Your task to perform on an android device: visit the assistant section in the google photos Image 0: 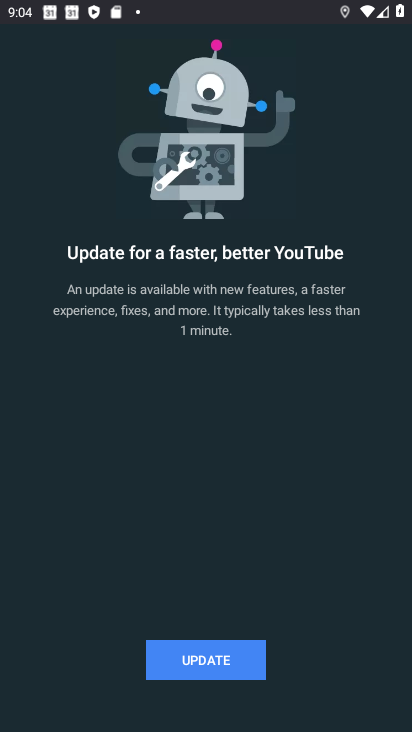
Step 0: press back button
Your task to perform on an android device: visit the assistant section in the google photos Image 1: 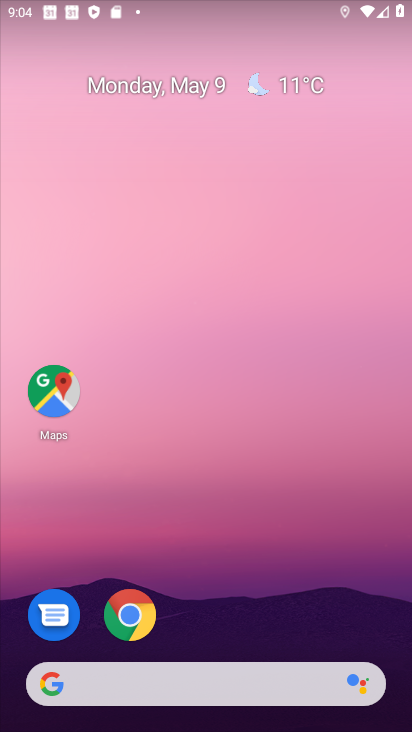
Step 1: drag from (265, 589) to (214, 3)
Your task to perform on an android device: visit the assistant section in the google photos Image 2: 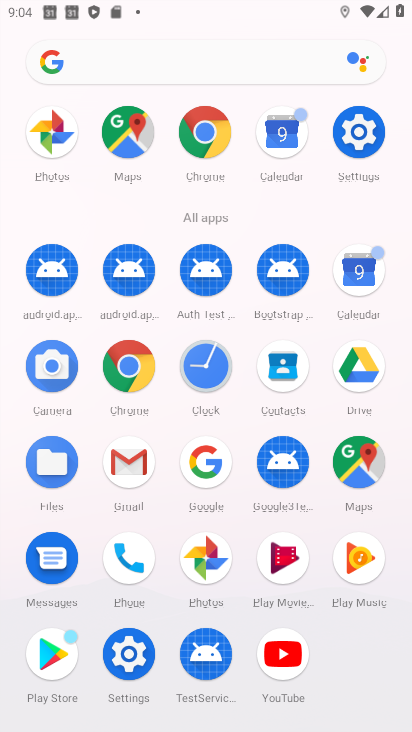
Step 2: click (206, 557)
Your task to perform on an android device: visit the assistant section in the google photos Image 3: 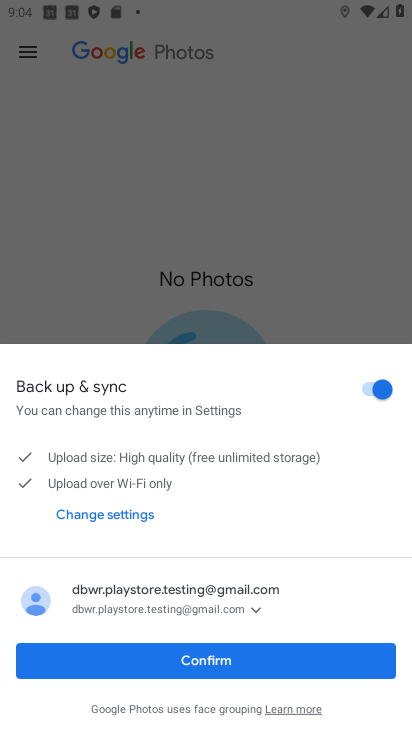
Step 3: click (225, 660)
Your task to perform on an android device: visit the assistant section in the google photos Image 4: 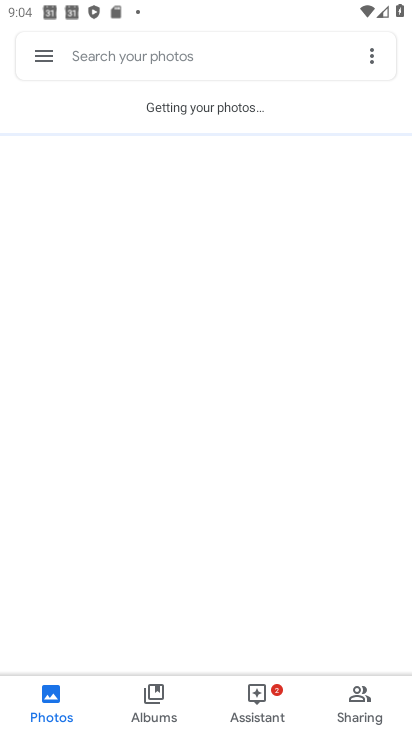
Step 4: click (45, 57)
Your task to perform on an android device: visit the assistant section in the google photos Image 5: 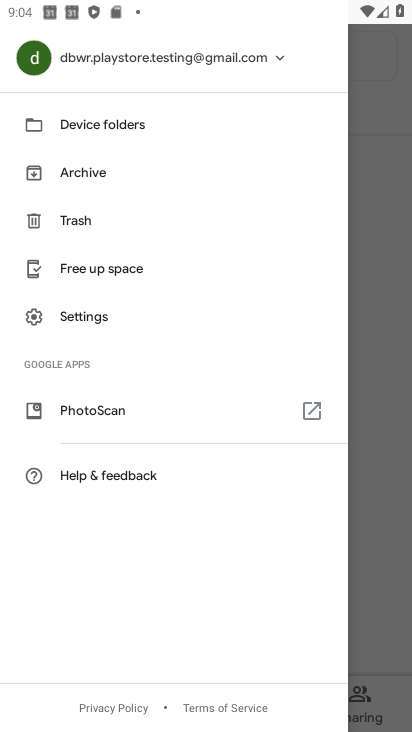
Step 5: click (376, 444)
Your task to perform on an android device: visit the assistant section in the google photos Image 6: 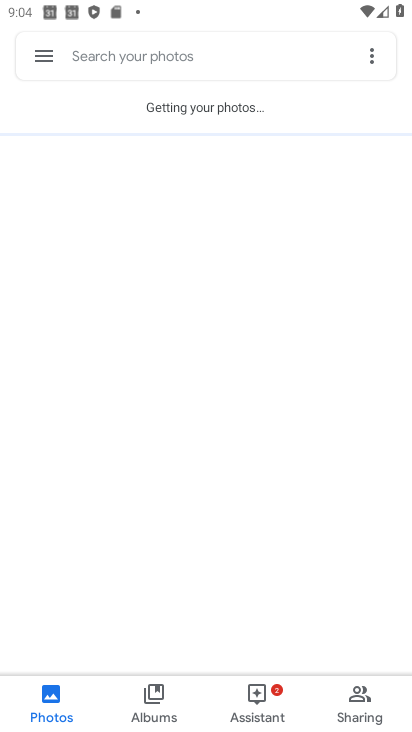
Step 6: click (262, 707)
Your task to perform on an android device: visit the assistant section in the google photos Image 7: 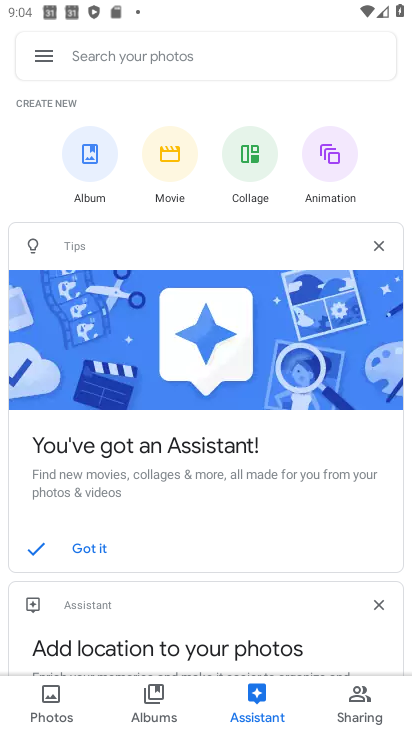
Step 7: task complete